Your task to perform on an android device: uninstall "Duolingo: language lessons" Image 0: 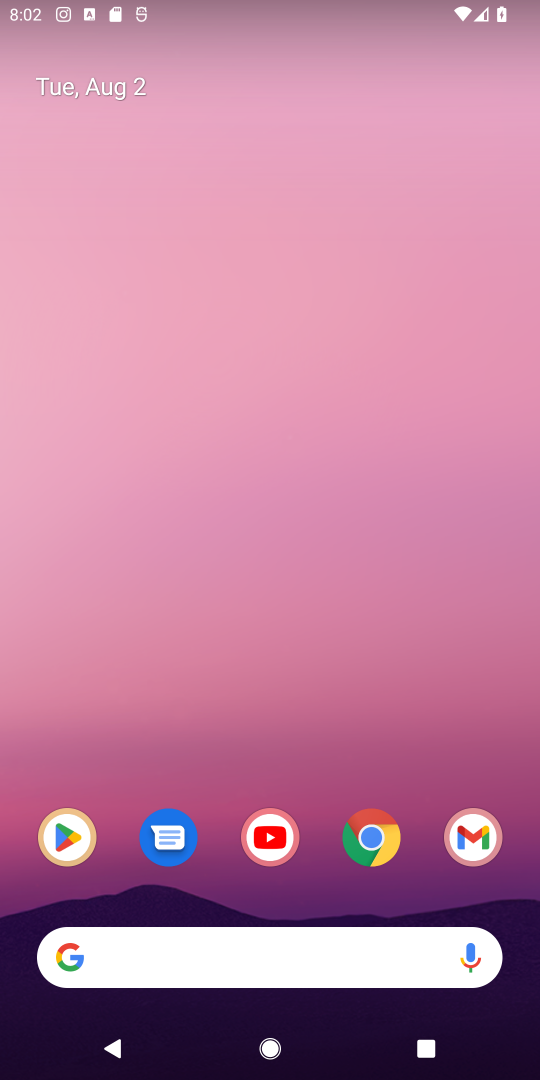
Step 0: click (69, 828)
Your task to perform on an android device: uninstall "Duolingo: language lessons" Image 1: 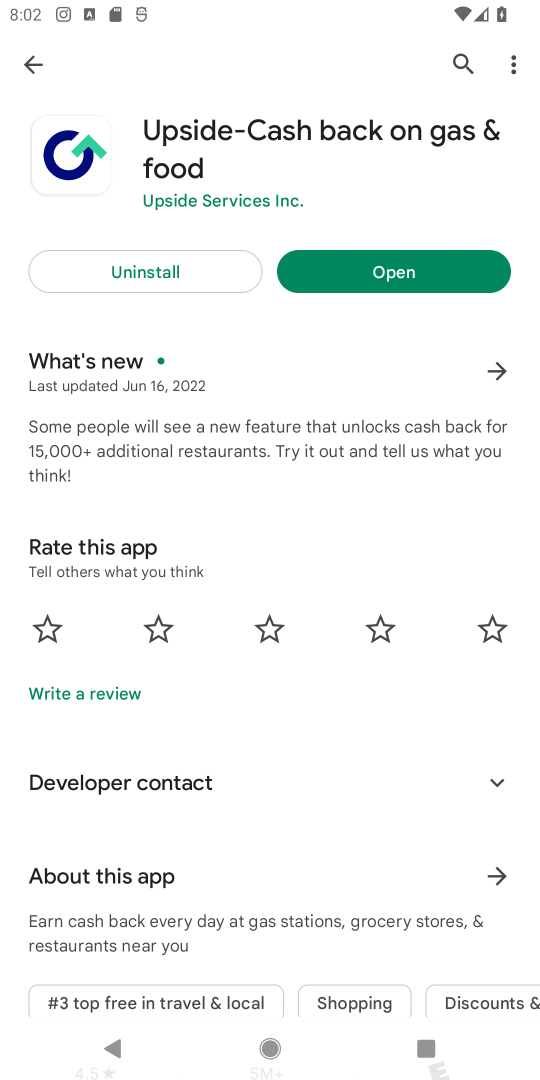
Step 1: click (461, 68)
Your task to perform on an android device: uninstall "Duolingo: language lessons" Image 2: 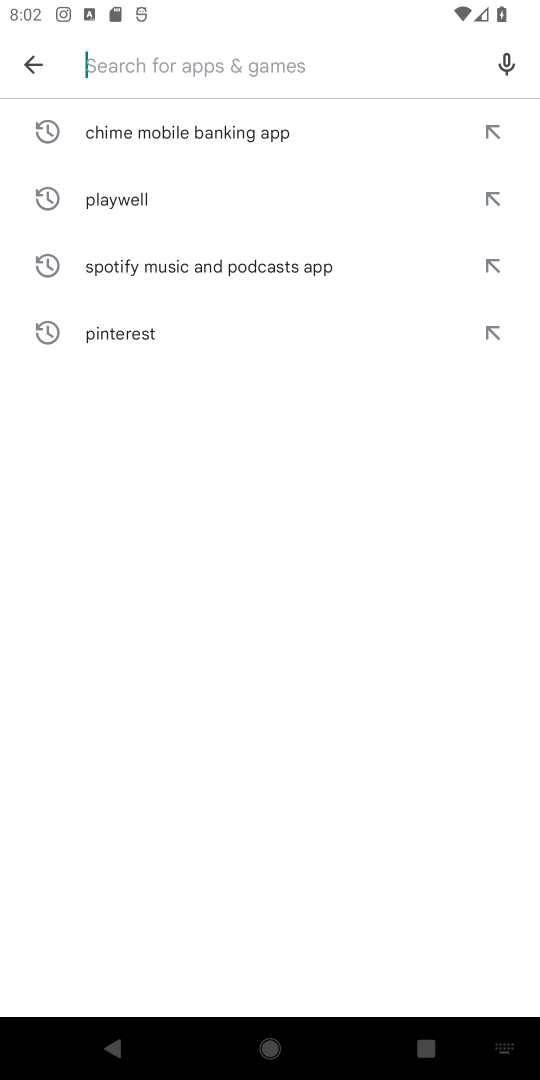
Step 2: type "Duolingo: language lessons"
Your task to perform on an android device: uninstall "Duolingo: language lessons" Image 3: 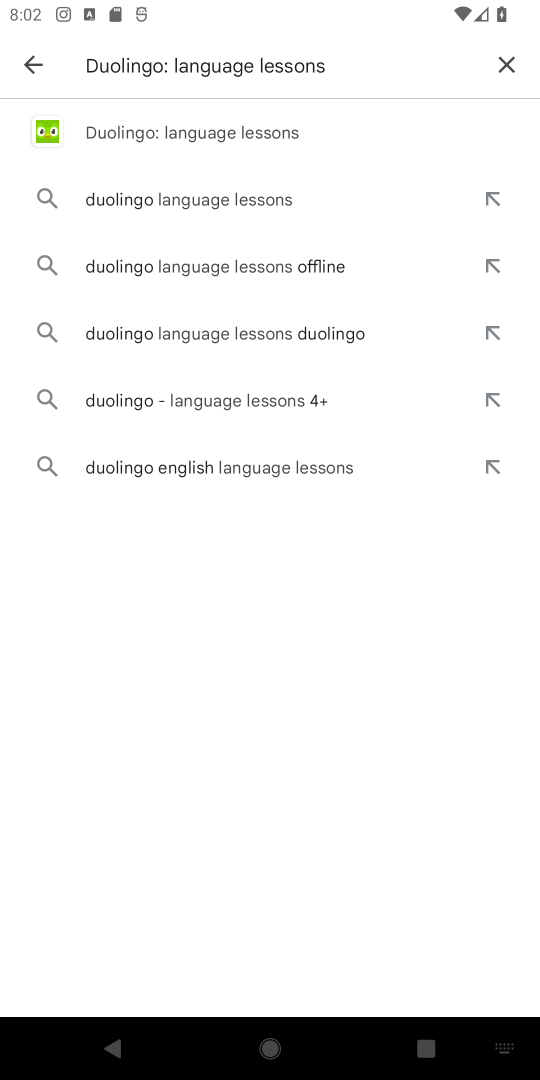
Step 3: click (186, 141)
Your task to perform on an android device: uninstall "Duolingo: language lessons" Image 4: 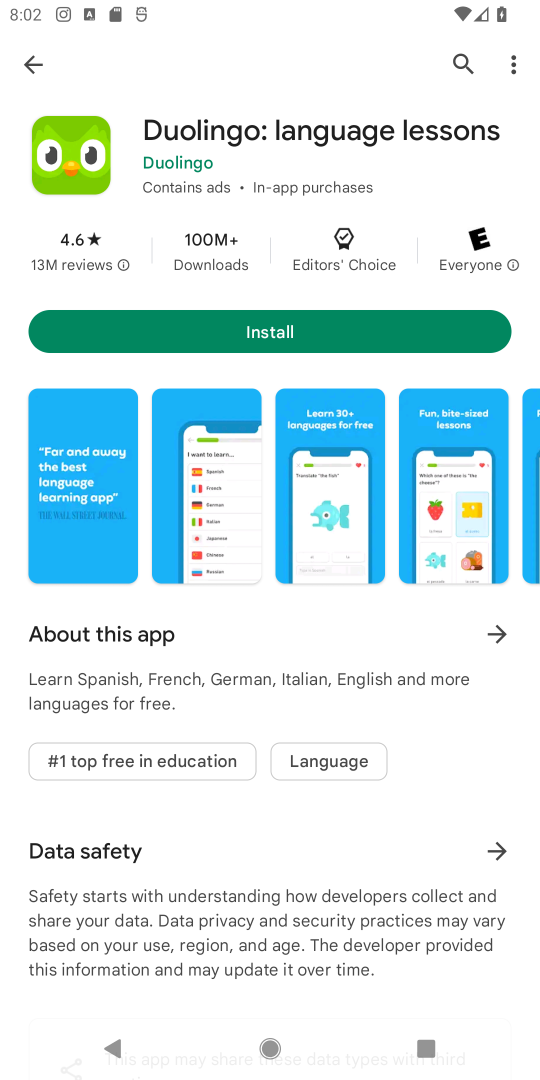
Step 4: task complete